Your task to perform on an android device: Search for vegetarian restaurants on Maps Image 0: 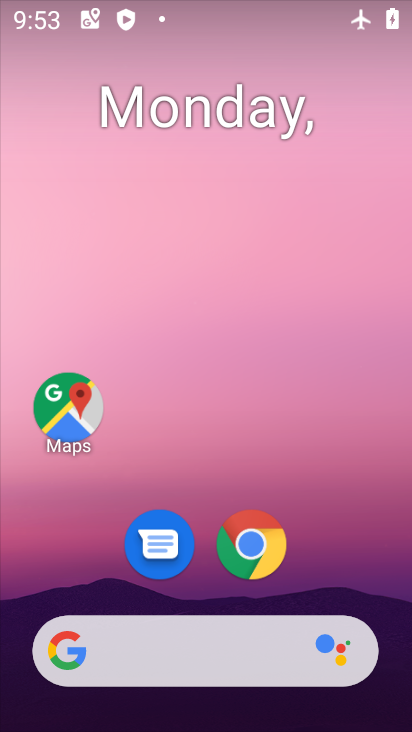
Step 0: click (69, 399)
Your task to perform on an android device: Search for vegetarian restaurants on Maps Image 1: 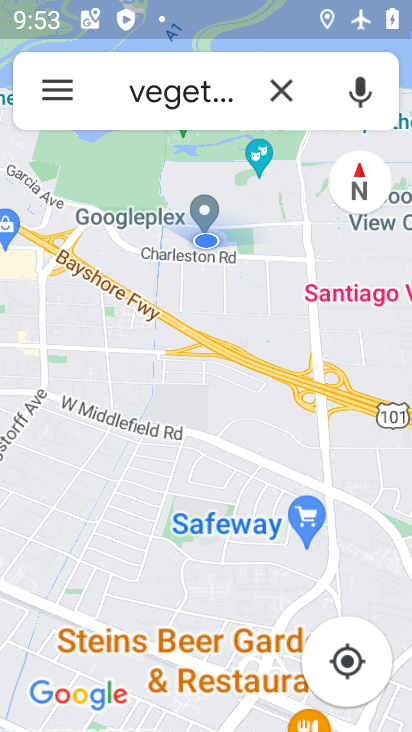
Step 1: click (273, 89)
Your task to perform on an android device: Search for vegetarian restaurants on Maps Image 2: 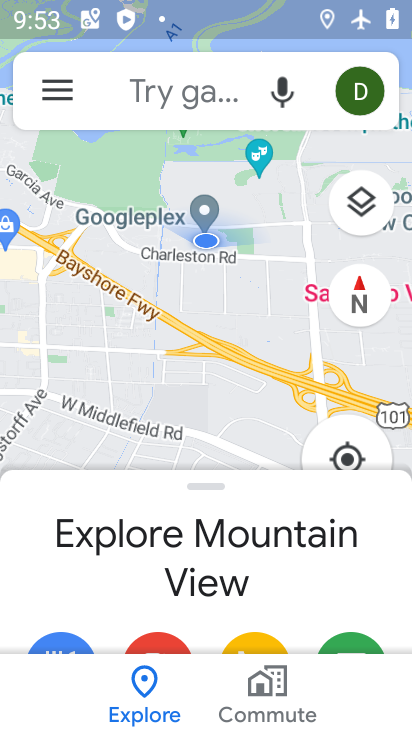
Step 2: click (195, 83)
Your task to perform on an android device: Search for vegetarian restaurants on Maps Image 3: 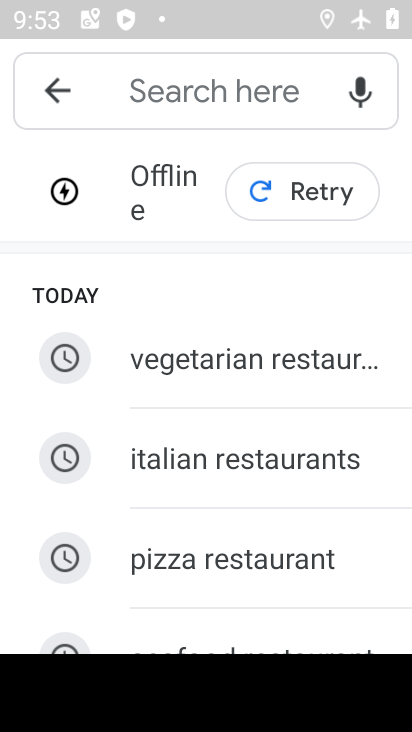
Step 3: click (244, 340)
Your task to perform on an android device: Search for vegetarian restaurants on Maps Image 4: 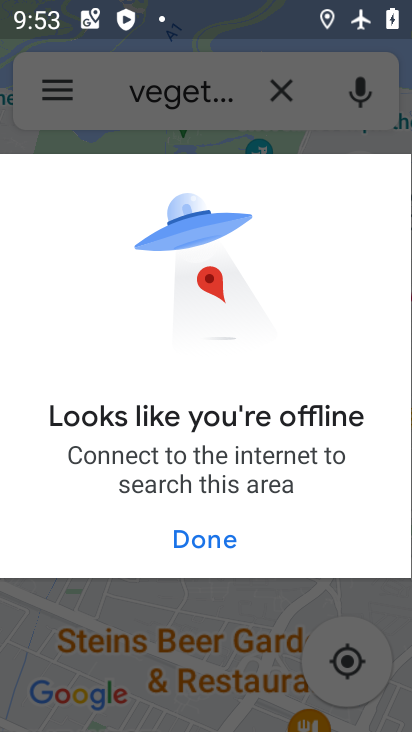
Step 4: click (207, 532)
Your task to perform on an android device: Search for vegetarian restaurants on Maps Image 5: 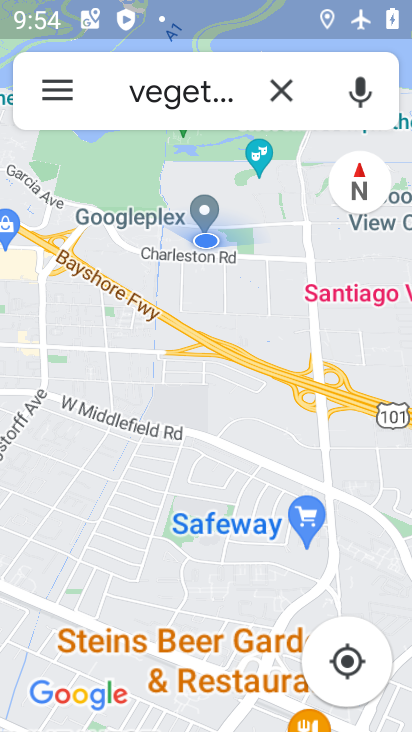
Step 5: task complete